Your task to perform on an android device: Open notification settings Image 0: 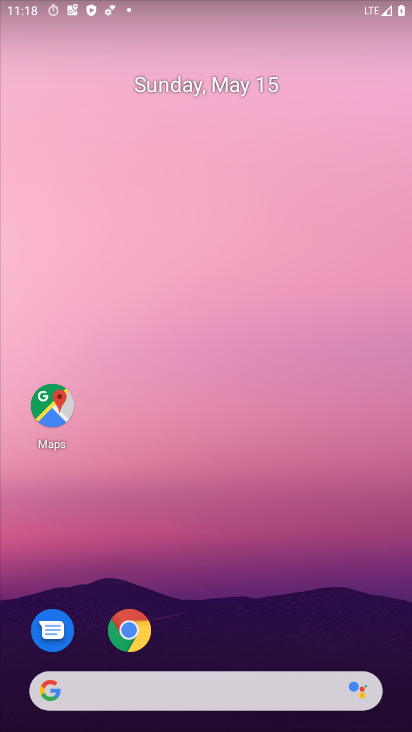
Step 0: drag from (199, 663) to (288, 165)
Your task to perform on an android device: Open notification settings Image 1: 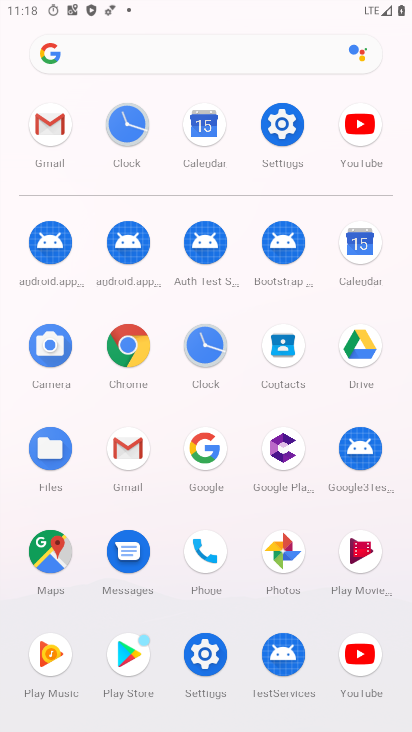
Step 1: click (288, 124)
Your task to perform on an android device: Open notification settings Image 2: 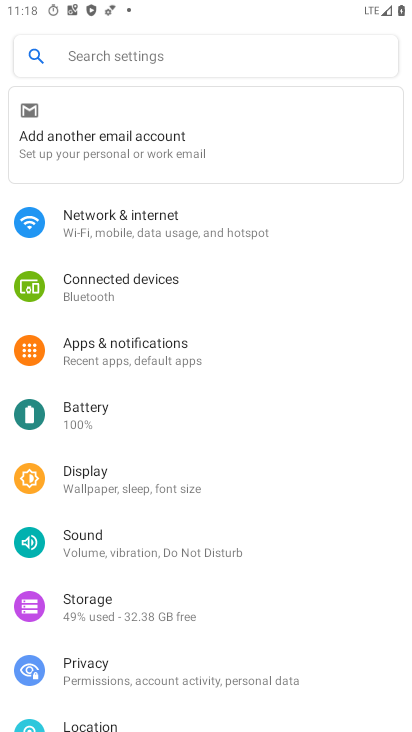
Step 2: click (140, 342)
Your task to perform on an android device: Open notification settings Image 3: 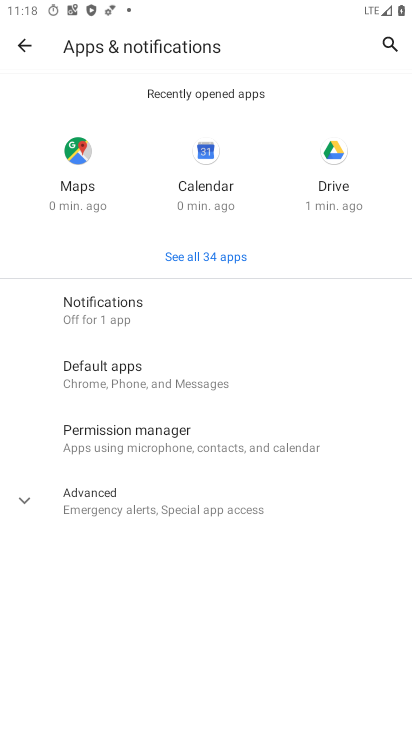
Step 3: task complete